Your task to perform on an android device: Go to notification settings Image 0: 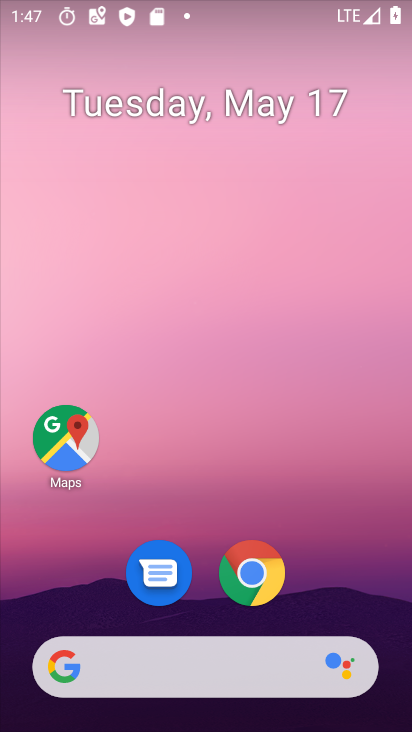
Step 0: drag from (199, 719) to (314, 14)
Your task to perform on an android device: Go to notification settings Image 1: 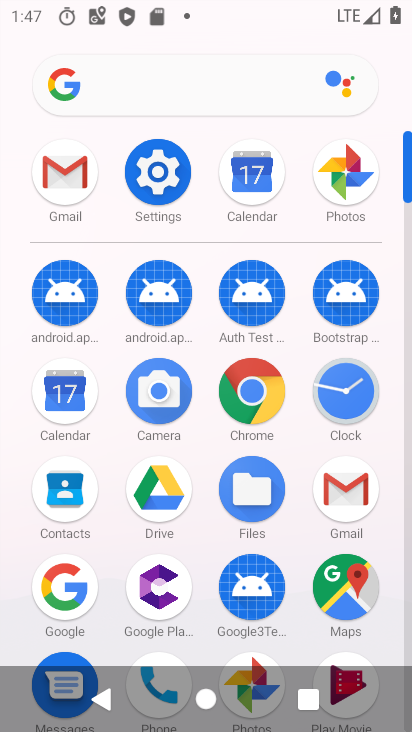
Step 1: click (166, 185)
Your task to perform on an android device: Go to notification settings Image 2: 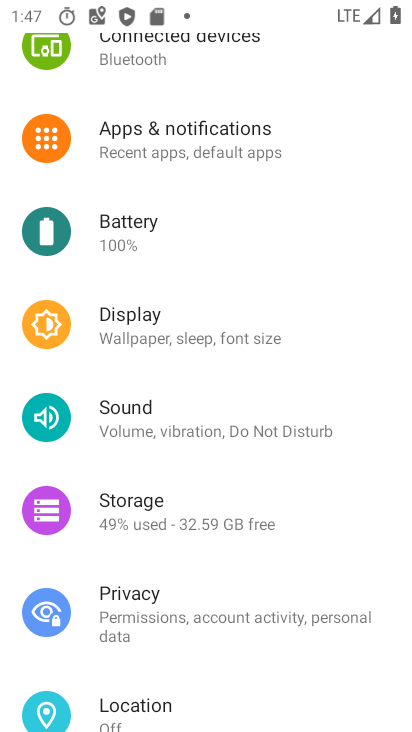
Step 2: click (257, 132)
Your task to perform on an android device: Go to notification settings Image 3: 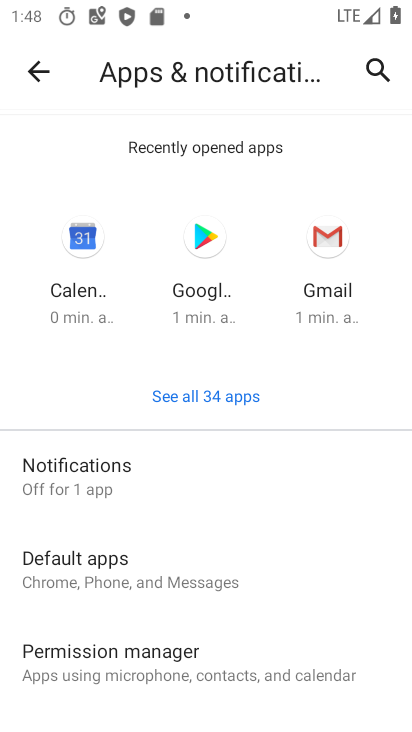
Step 3: task complete